Your task to perform on an android device: turn on airplane mode Image 0: 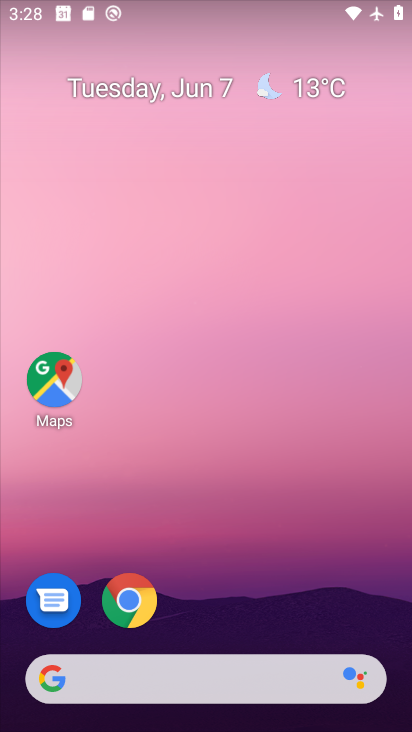
Step 0: drag from (327, 570) to (320, 160)
Your task to perform on an android device: turn on airplane mode Image 1: 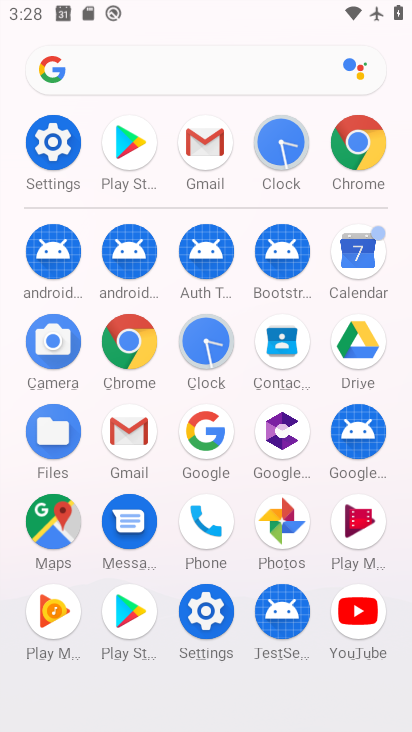
Step 1: click (46, 146)
Your task to perform on an android device: turn on airplane mode Image 2: 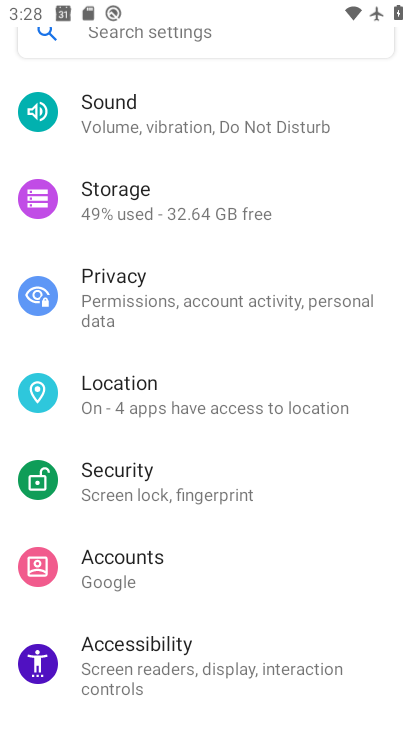
Step 2: drag from (211, 147) to (276, 617)
Your task to perform on an android device: turn on airplane mode Image 3: 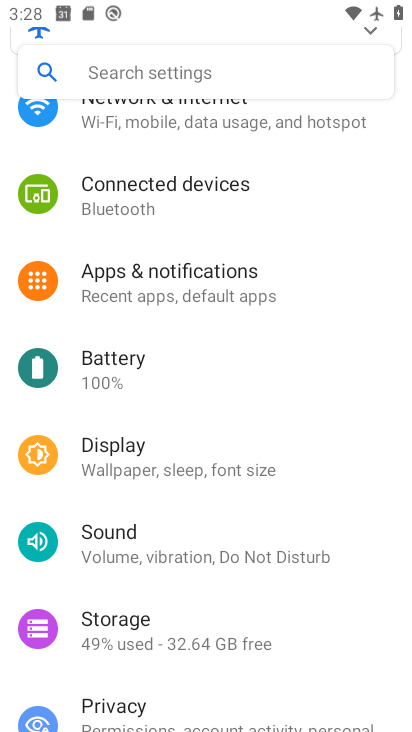
Step 3: drag from (195, 160) to (153, 512)
Your task to perform on an android device: turn on airplane mode Image 4: 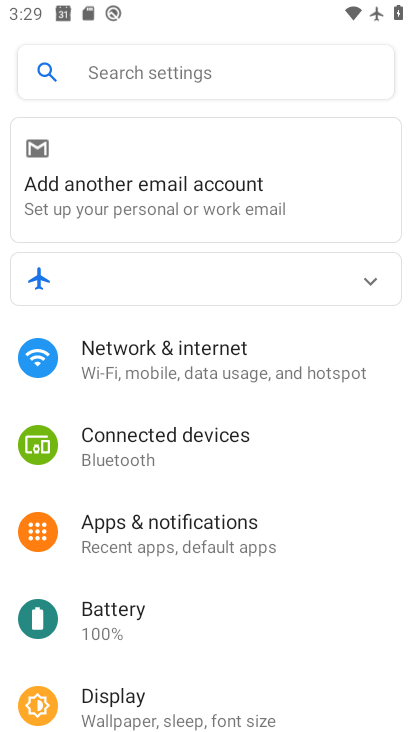
Step 4: click (179, 355)
Your task to perform on an android device: turn on airplane mode Image 5: 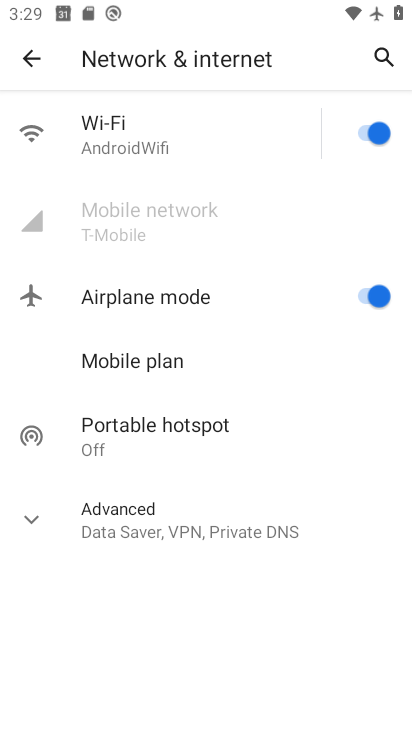
Step 5: task complete